Your task to perform on an android device: open app "Spotify: Music and Podcasts" Image 0: 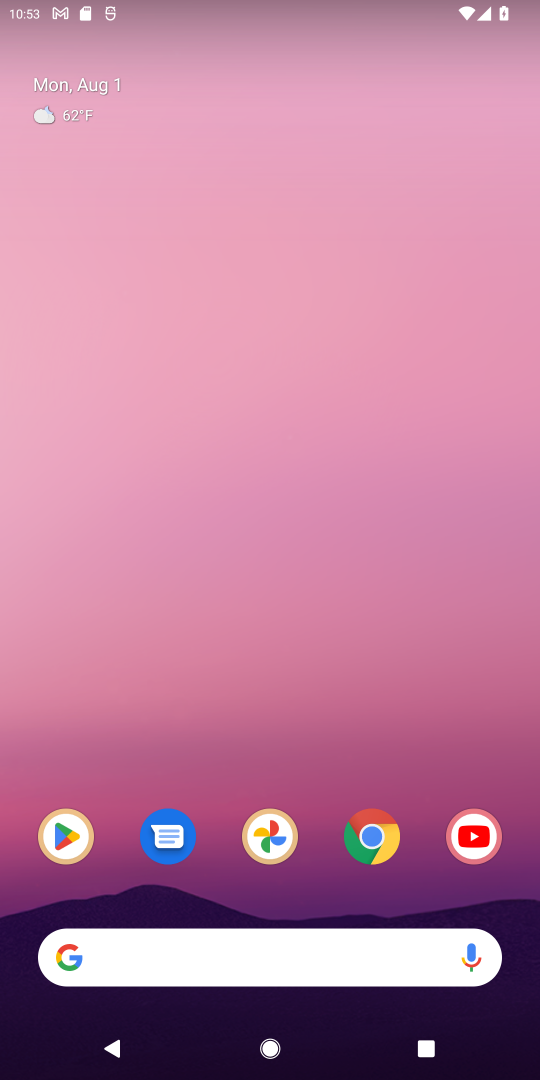
Step 0: drag from (323, 765) to (205, 134)
Your task to perform on an android device: open app "Spotify: Music and Podcasts" Image 1: 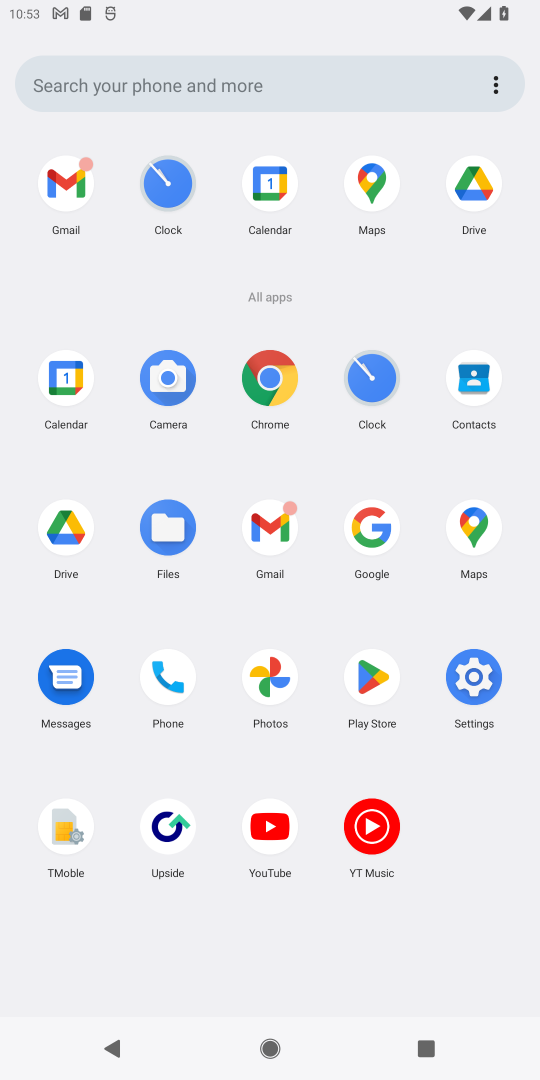
Step 1: click (380, 689)
Your task to perform on an android device: open app "Spotify: Music and Podcasts" Image 2: 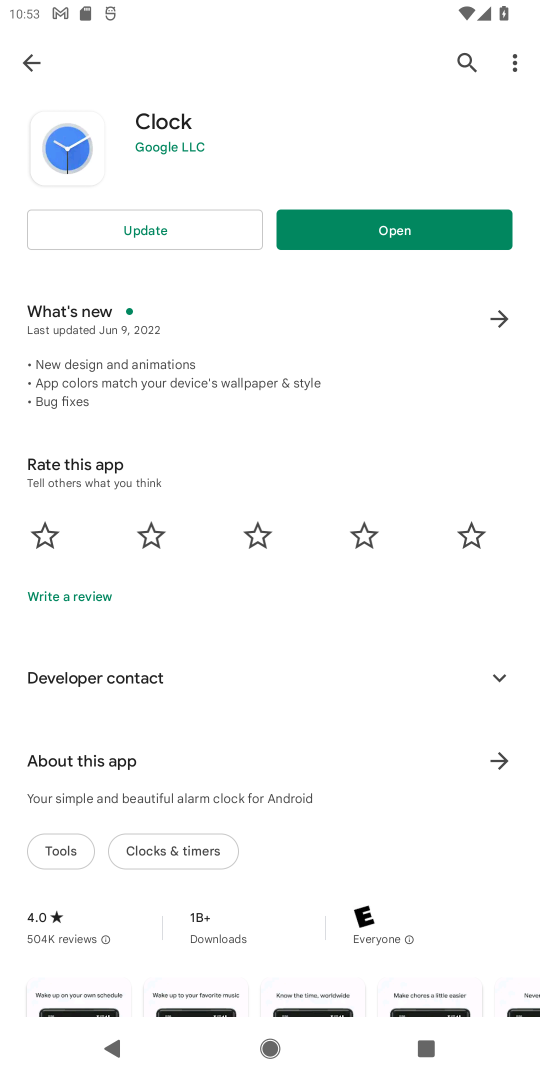
Step 2: click (467, 63)
Your task to perform on an android device: open app "Spotify: Music and Podcasts" Image 3: 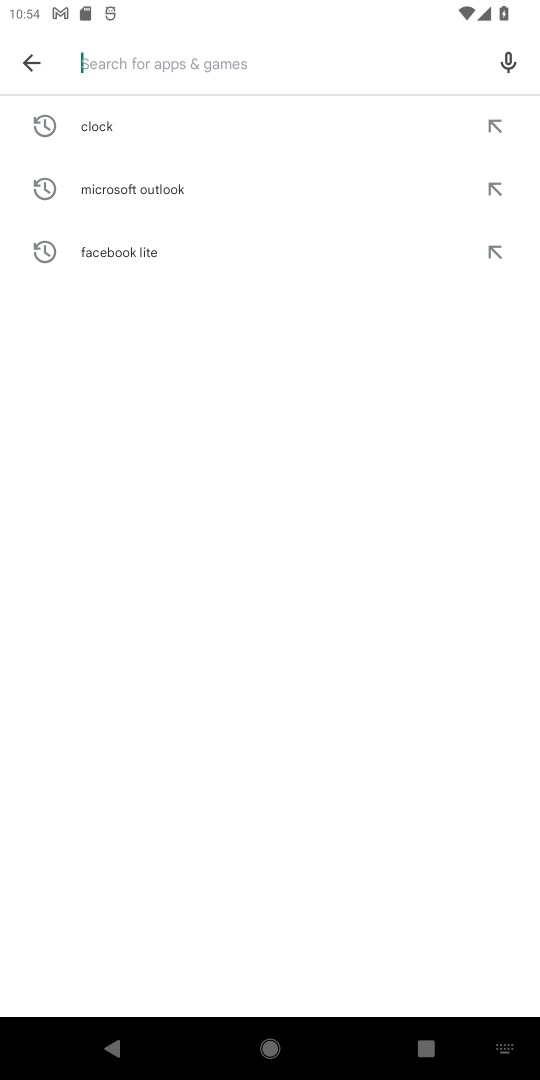
Step 3: type "spotify"
Your task to perform on an android device: open app "Spotify: Music and Podcasts" Image 4: 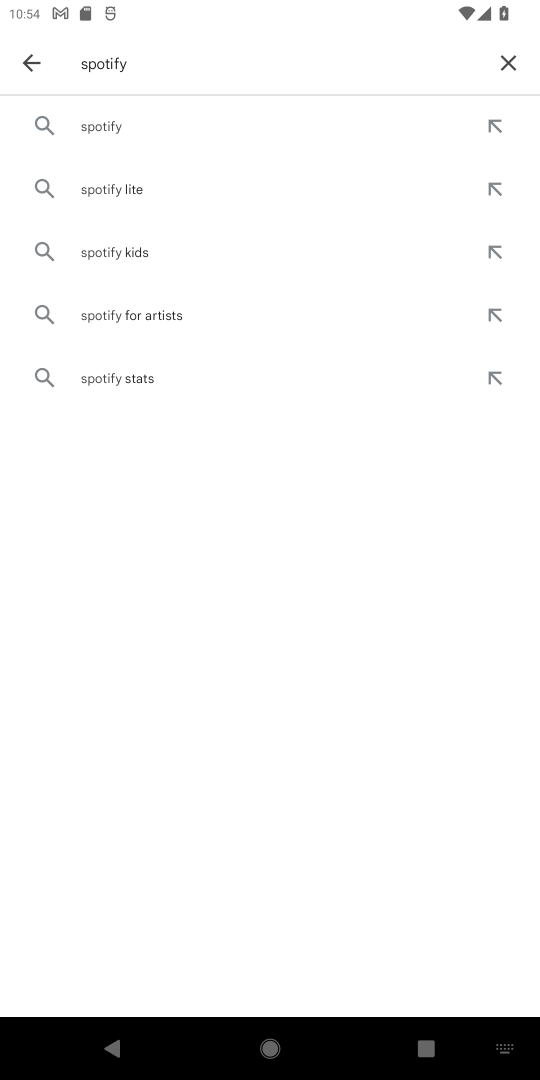
Step 4: click (134, 115)
Your task to perform on an android device: open app "Spotify: Music and Podcasts" Image 5: 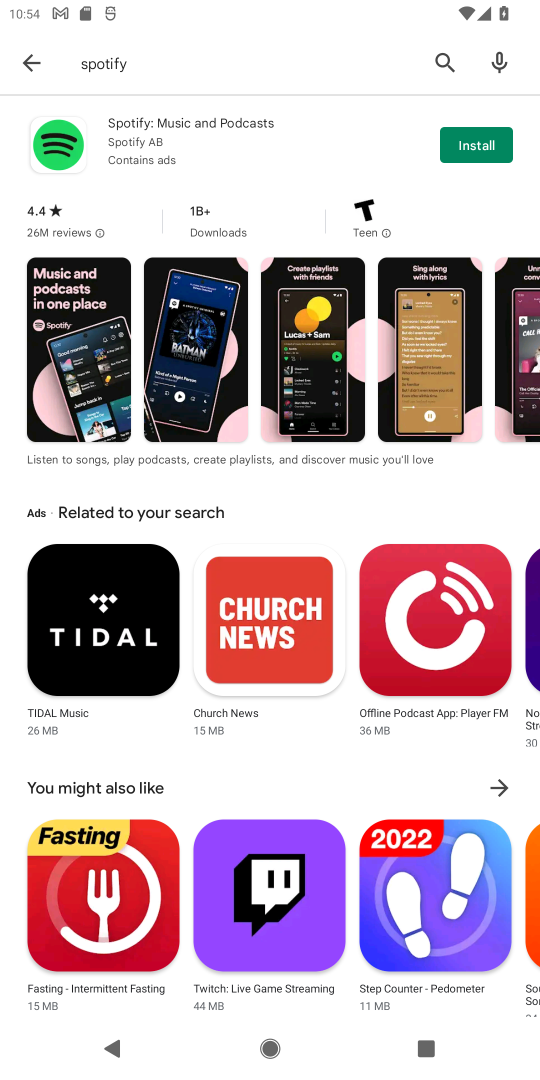
Step 5: task complete